Your task to perform on an android device: When is my next appointment? Image 0: 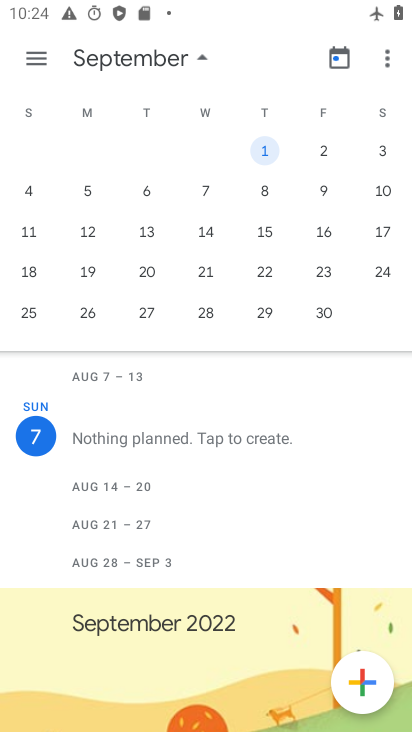
Step 0: drag from (144, 210) to (396, 305)
Your task to perform on an android device: When is my next appointment? Image 1: 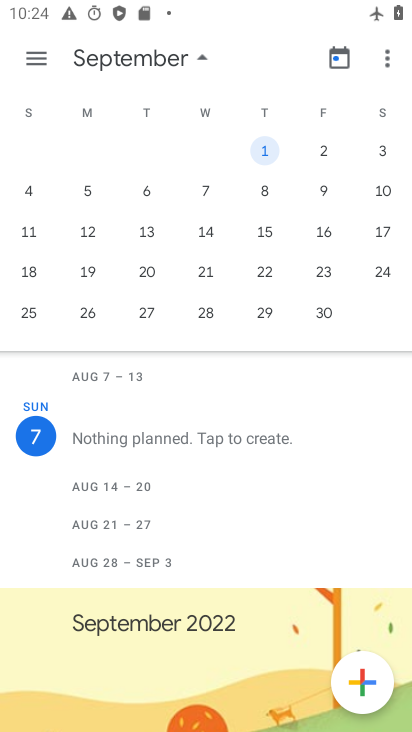
Step 1: drag from (81, 234) to (379, 190)
Your task to perform on an android device: When is my next appointment? Image 2: 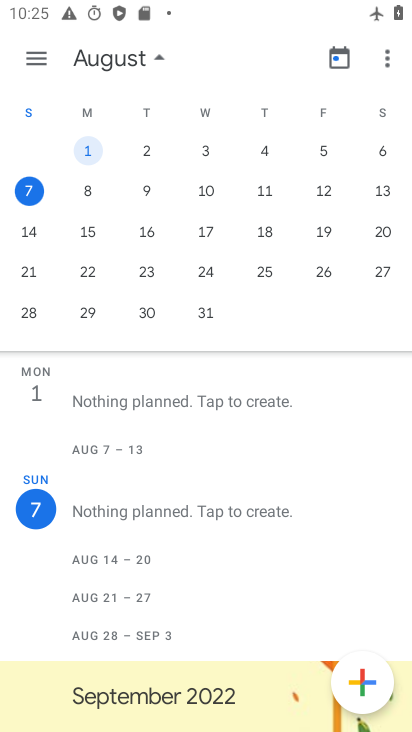
Step 2: click (86, 153)
Your task to perform on an android device: When is my next appointment? Image 3: 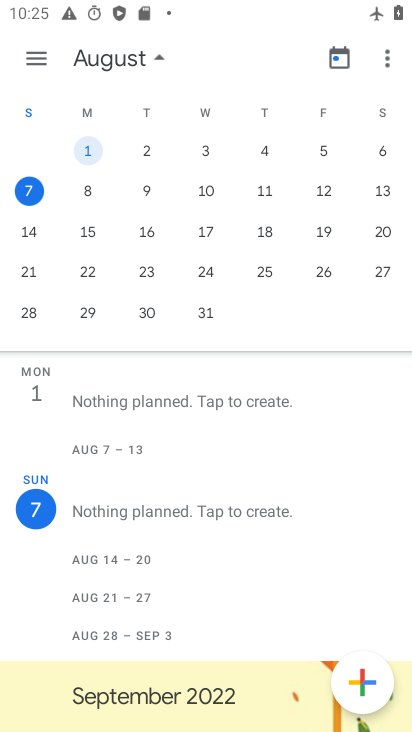
Step 3: click (93, 151)
Your task to perform on an android device: When is my next appointment? Image 4: 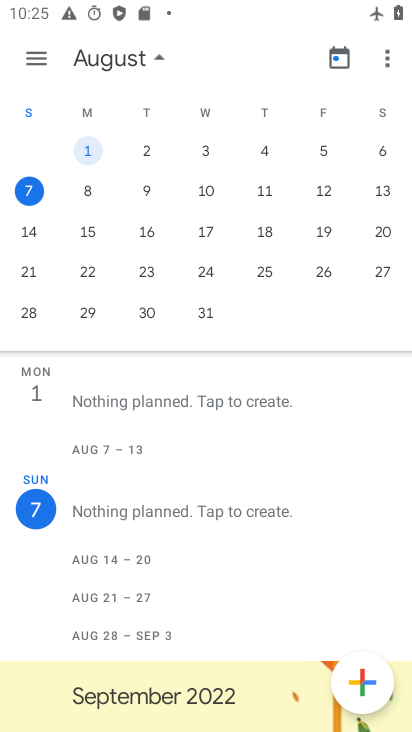
Step 4: click (28, 190)
Your task to perform on an android device: When is my next appointment? Image 5: 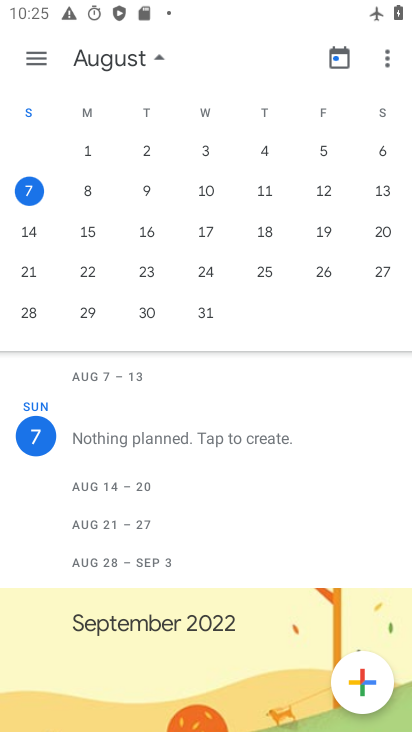
Step 5: task complete